Your task to perform on an android device: Open Wikipedia Image 0: 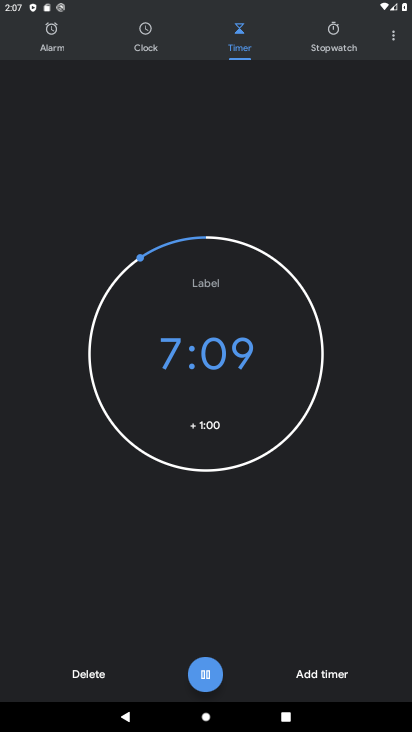
Step 0: press home button
Your task to perform on an android device: Open Wikipedia Image 1: 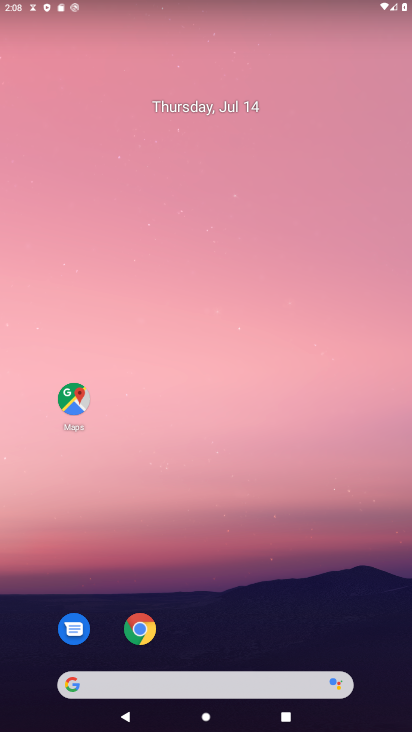
Step 1: click (140, 621)
Your task to perform on an android device: Open Wikipedia Image 2: 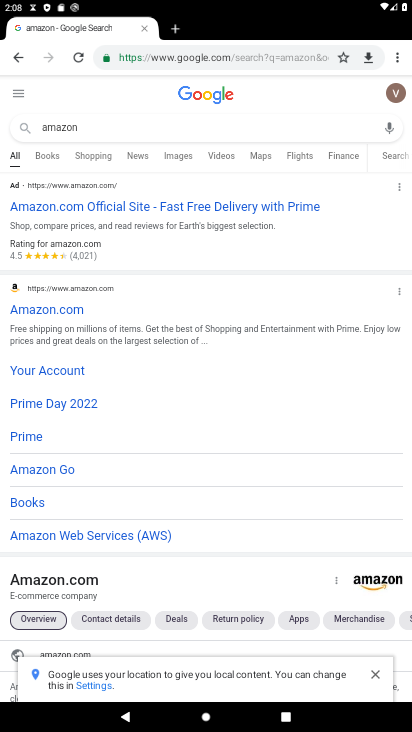
Step 2: click (175, 30)
Your task to perform on an android device: Open Wikipedia Image 3: 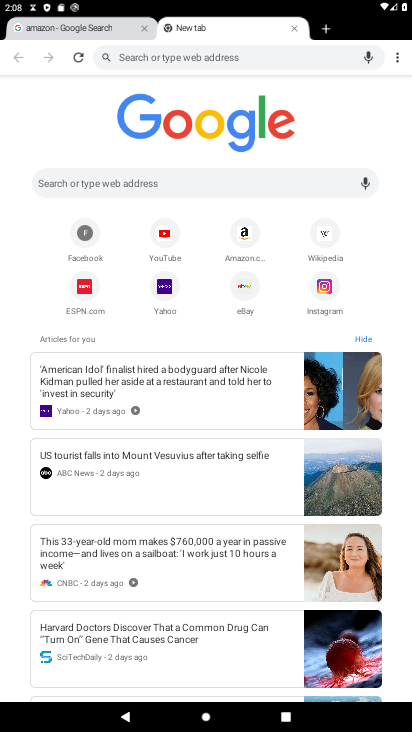
Step 3: click (324, 239)
Your task to perform on an android device: Open Wikipedia Image 4: 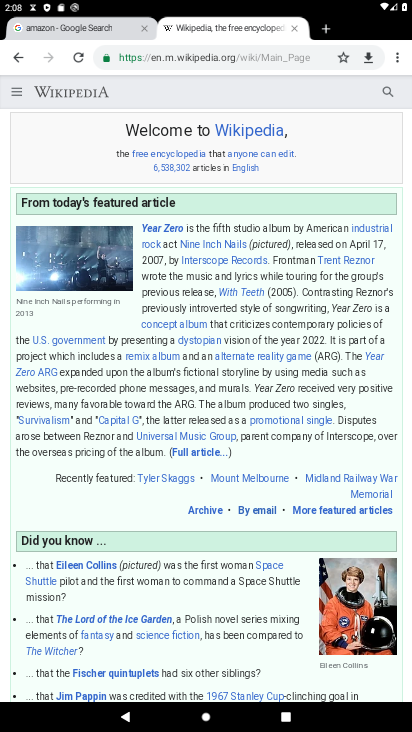
Step 4: task complete